Your task to perform on an android device: turn pop-ups off in chrome Image 0: 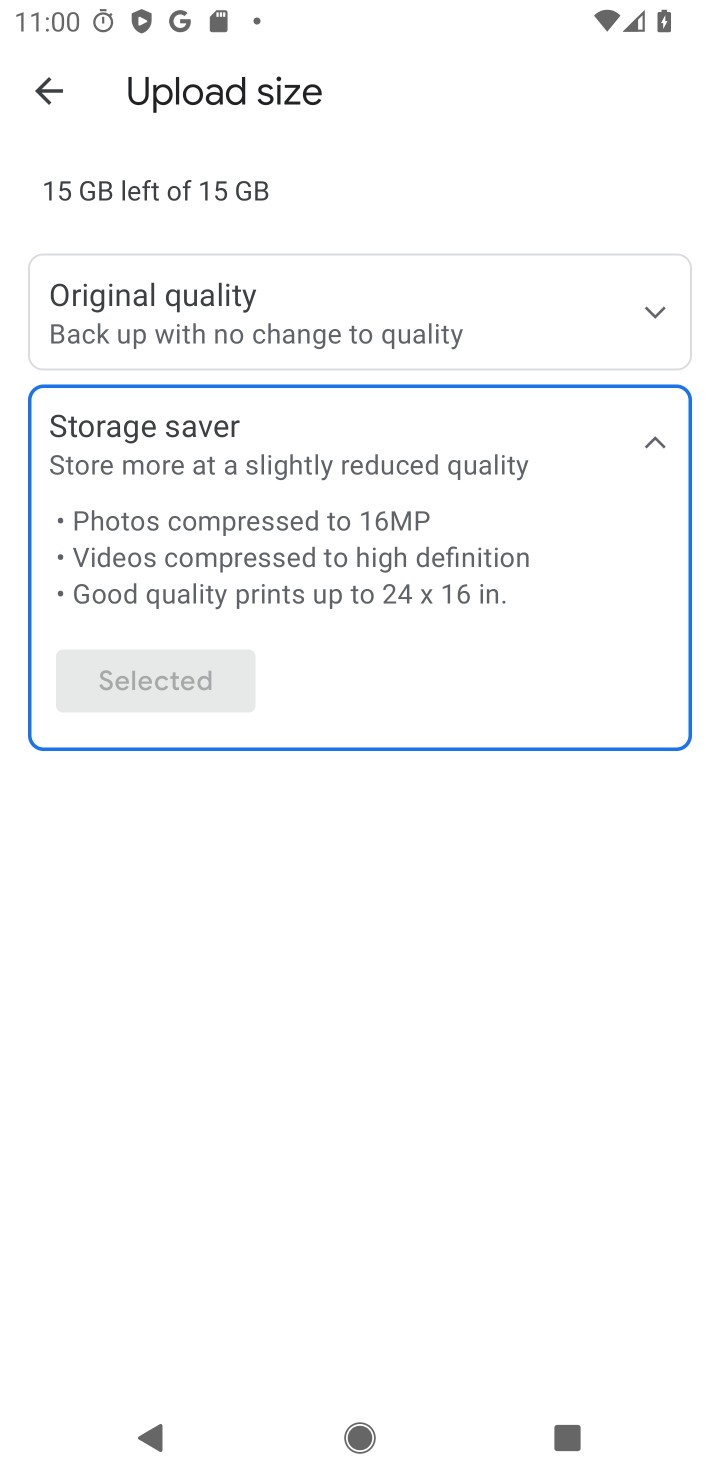
Step 0: press home button
Your task to perform on an android device: turn pop-ups off in chrome Image 1: 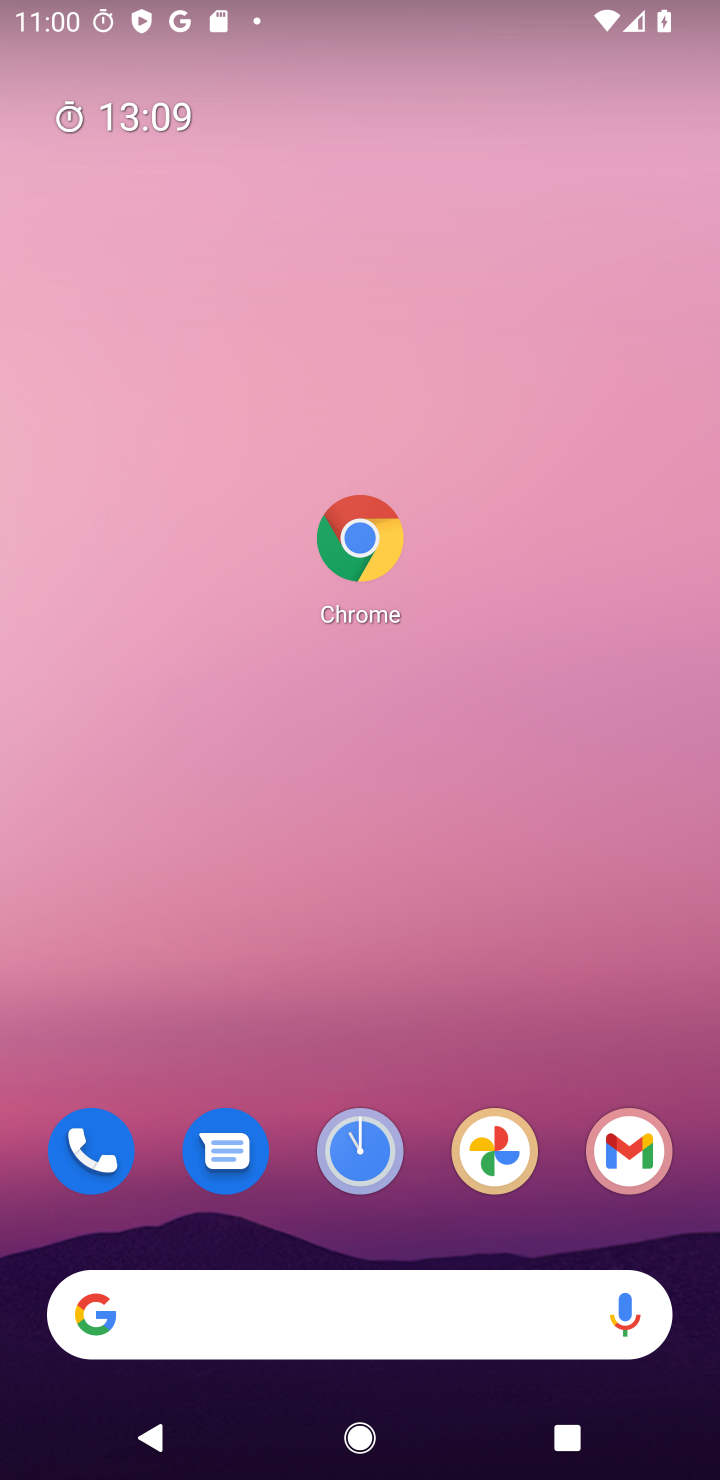
Step 1: click (390, 550)
Your task to perform on an android device: turn pop-ups off in chrome Image 2: 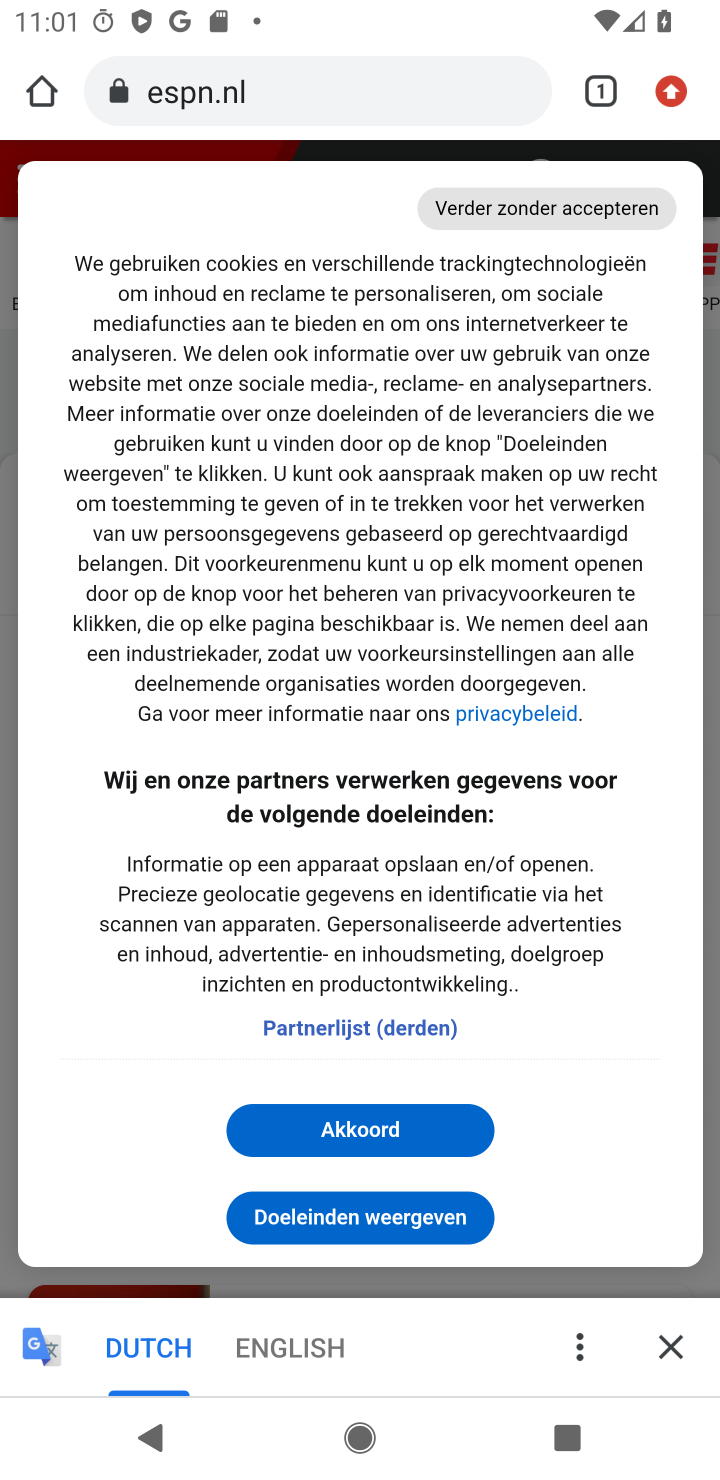
Step 2: click (670, 89)
Your task to perform on an android device: turn pop-ups off in chrome Image 3: 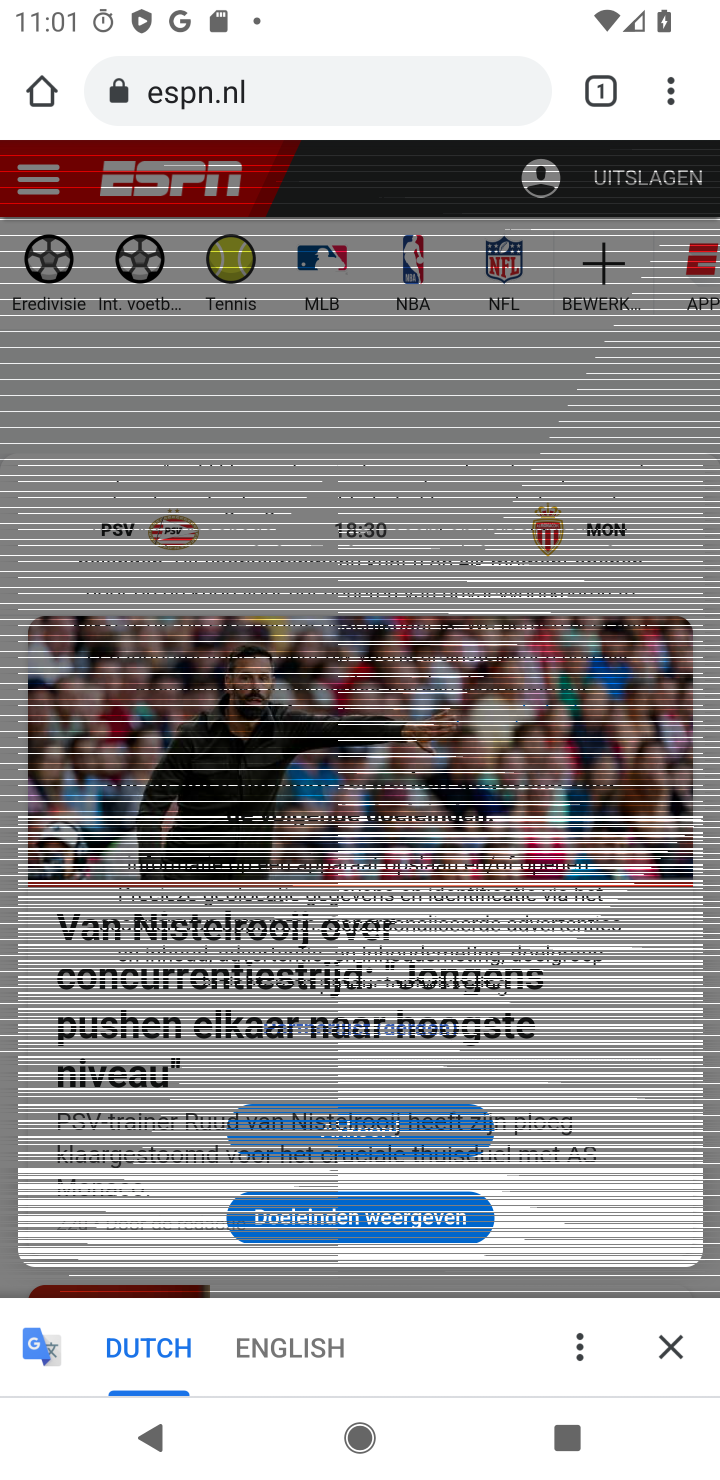
Step 3: click (673, 97)
Your task to perform on an android device: turn pop-ups off in chrome Image 4: 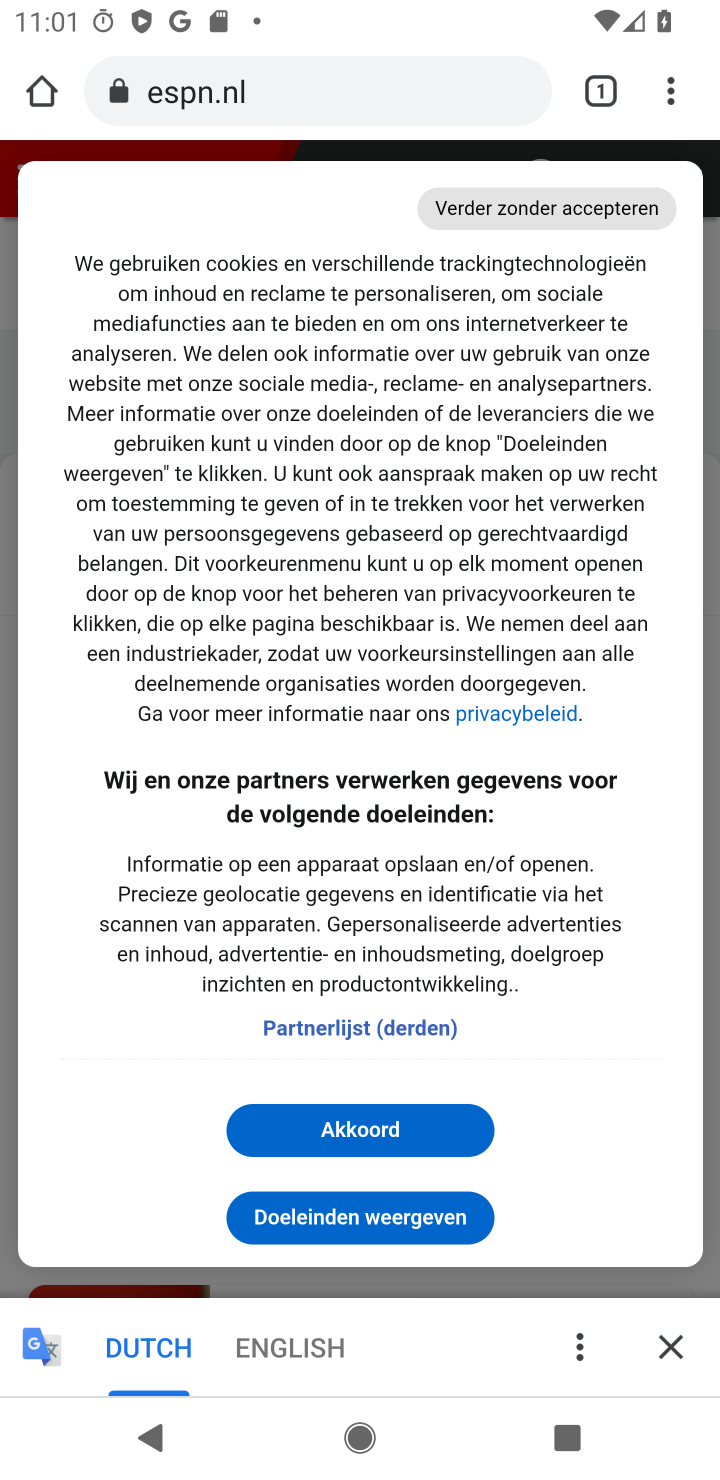
Step 4: click (674, 89)
Your task to perform on an android device: turn pop-ups off in chrome Image 5: 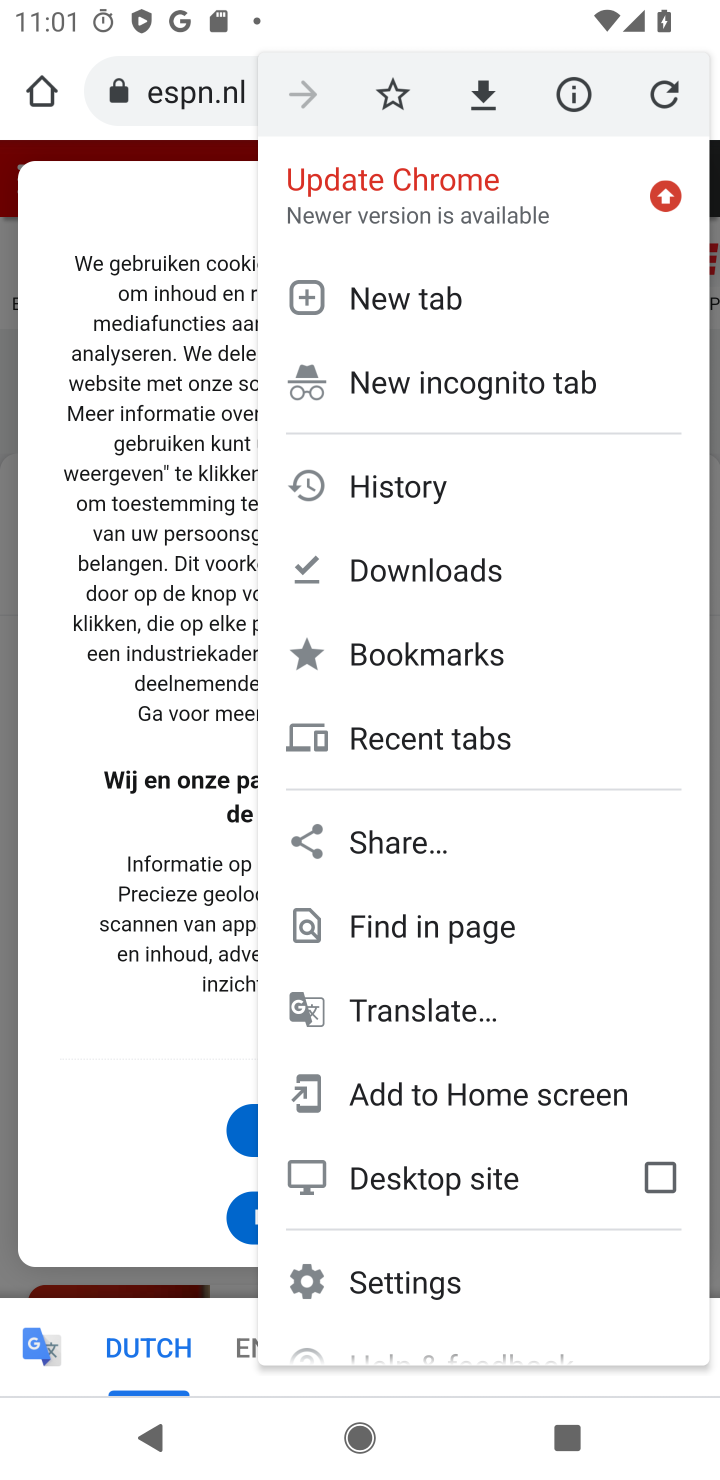
Step 5: click (392, 1292)
Your task to perform on an android device: turn pop-ups off in chrome Image 6: 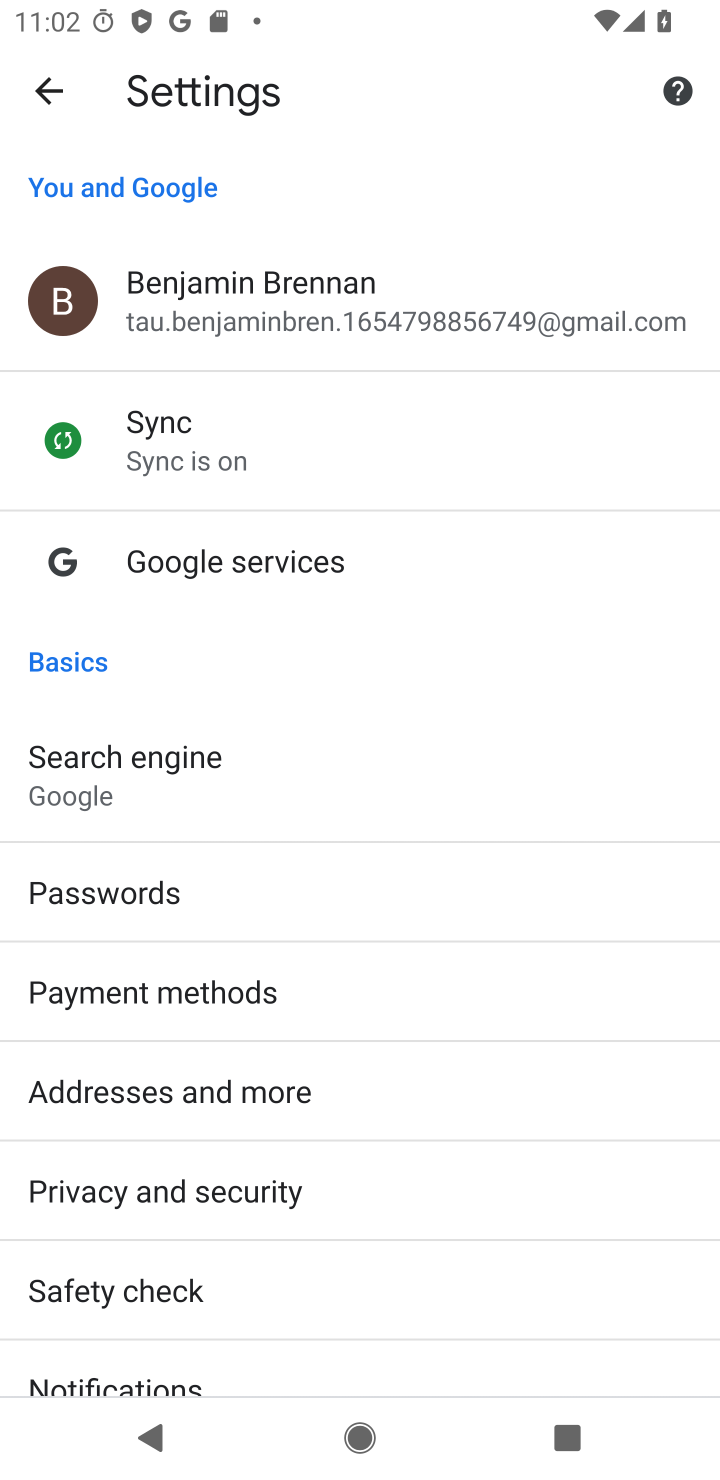
Step 6: drag from (527, 1271) to (351, 731)
Your task to perform on an android device: turn pop-ups off in chrome Image 7: 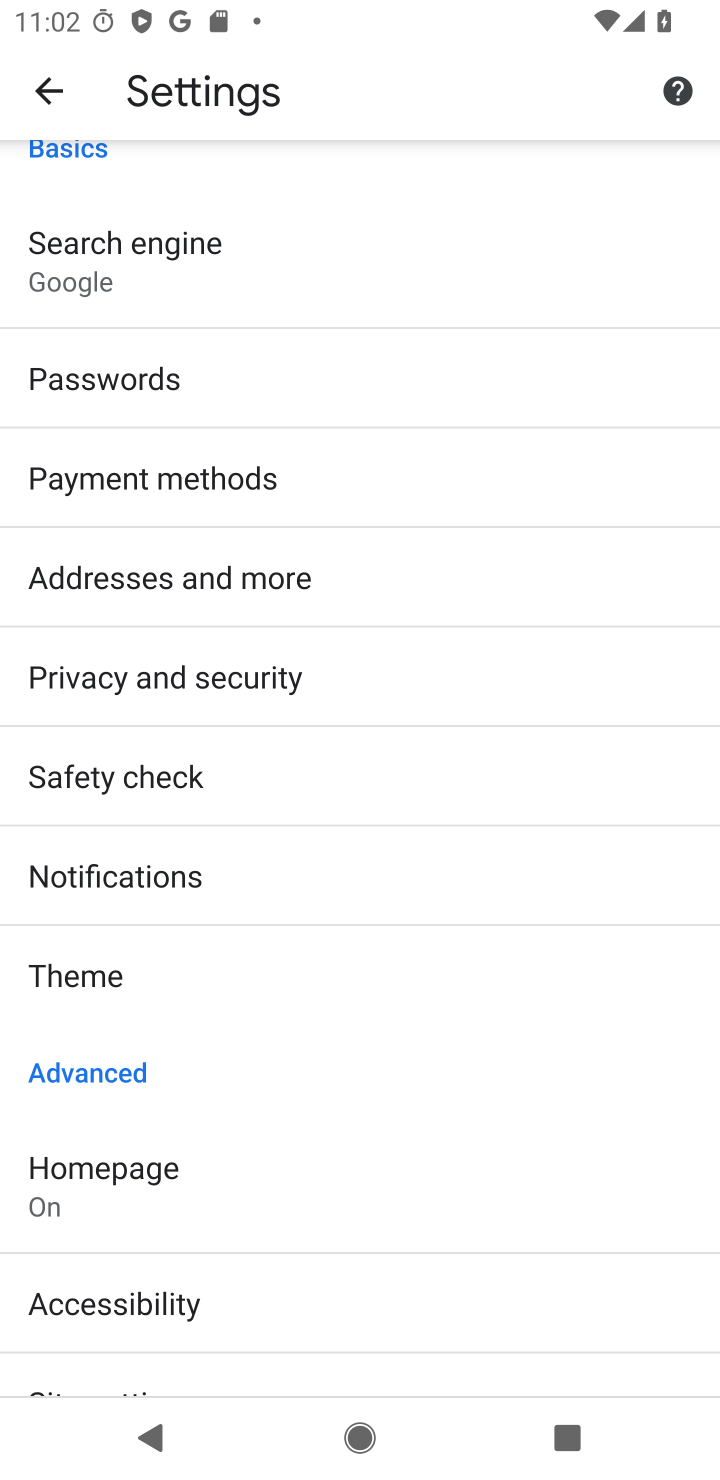
Step 7: drag from (400, 1152) to (270, 640)
Your task to perform on an android device: turn pop-ups off in chrome Image 8: 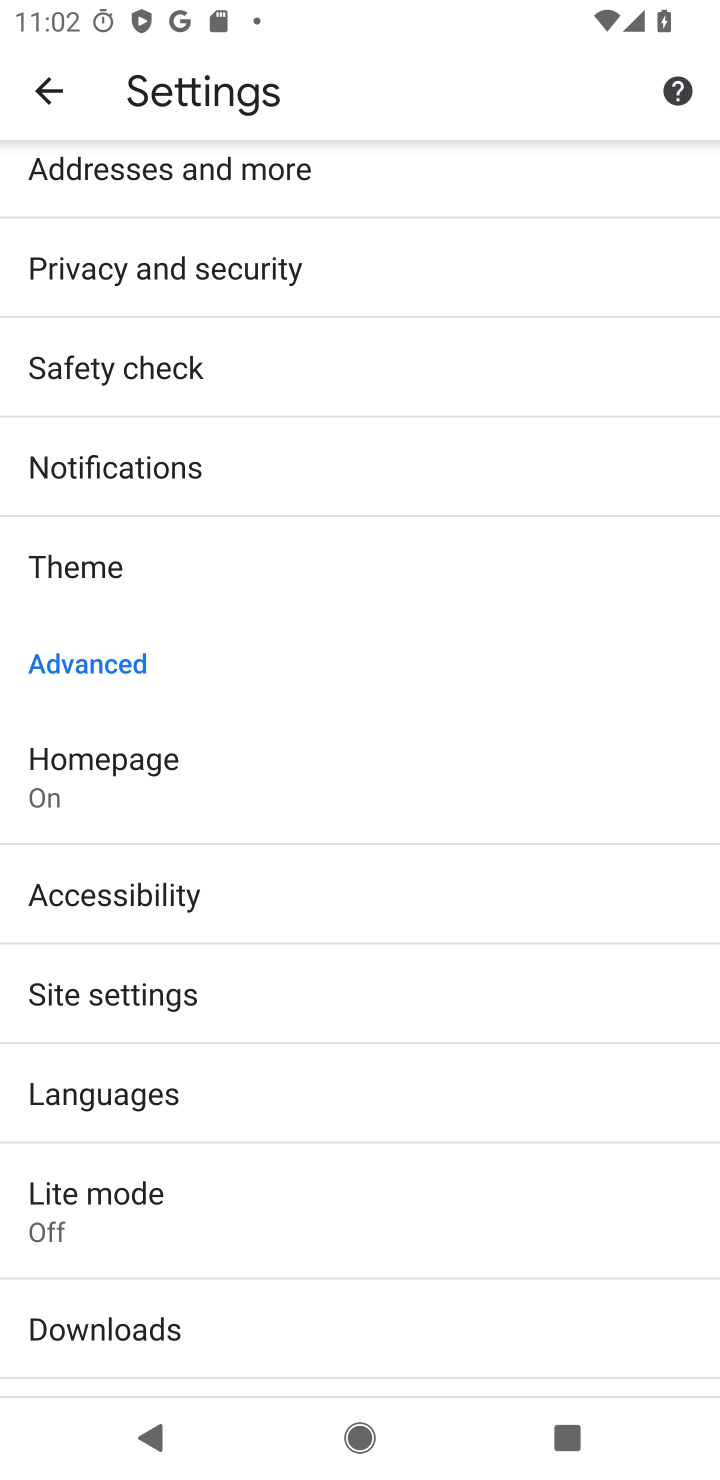
Step 8: click (206, 1013)
Your task to perform on an android device: turn pop-ups off in chrome Image 9: 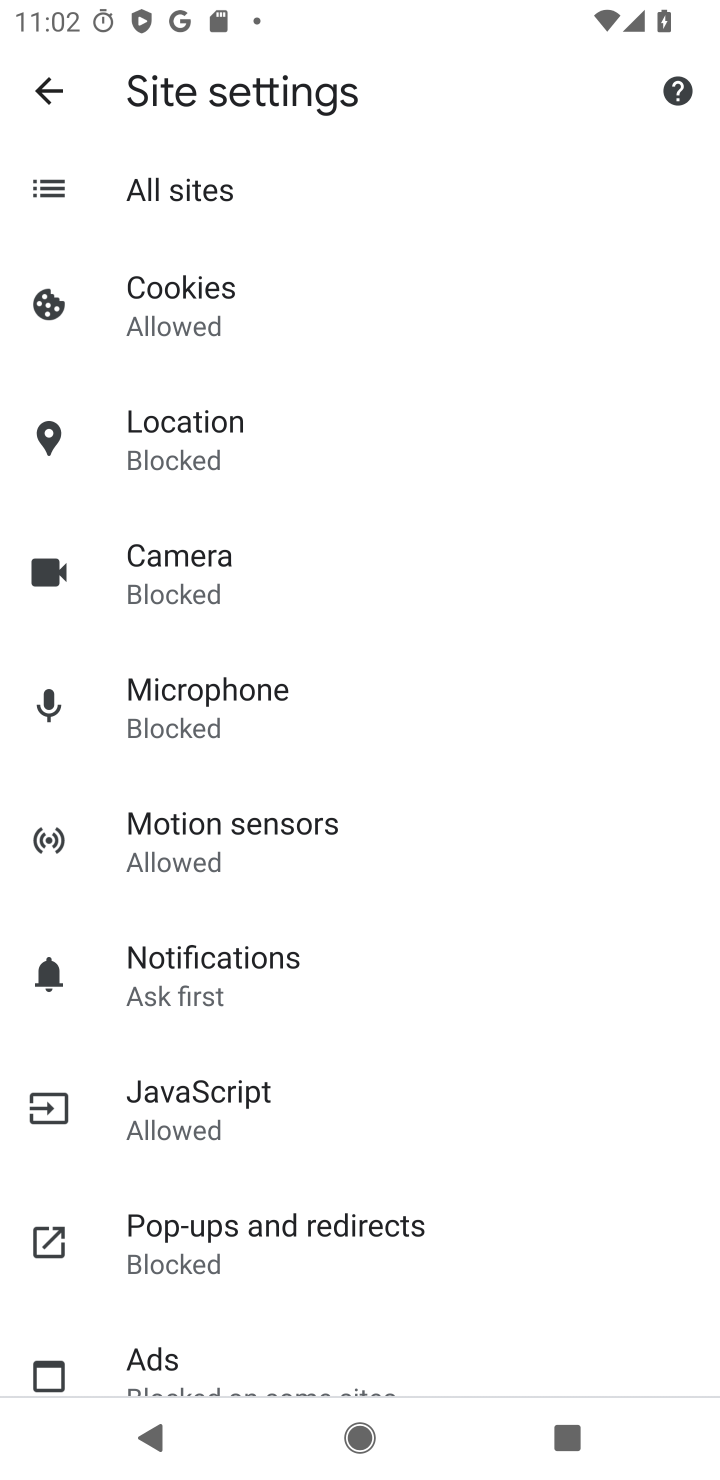
Step 9: click (515, 1239)
Your task to perform on an android device: turn pop-ups off in chrome Image 10: 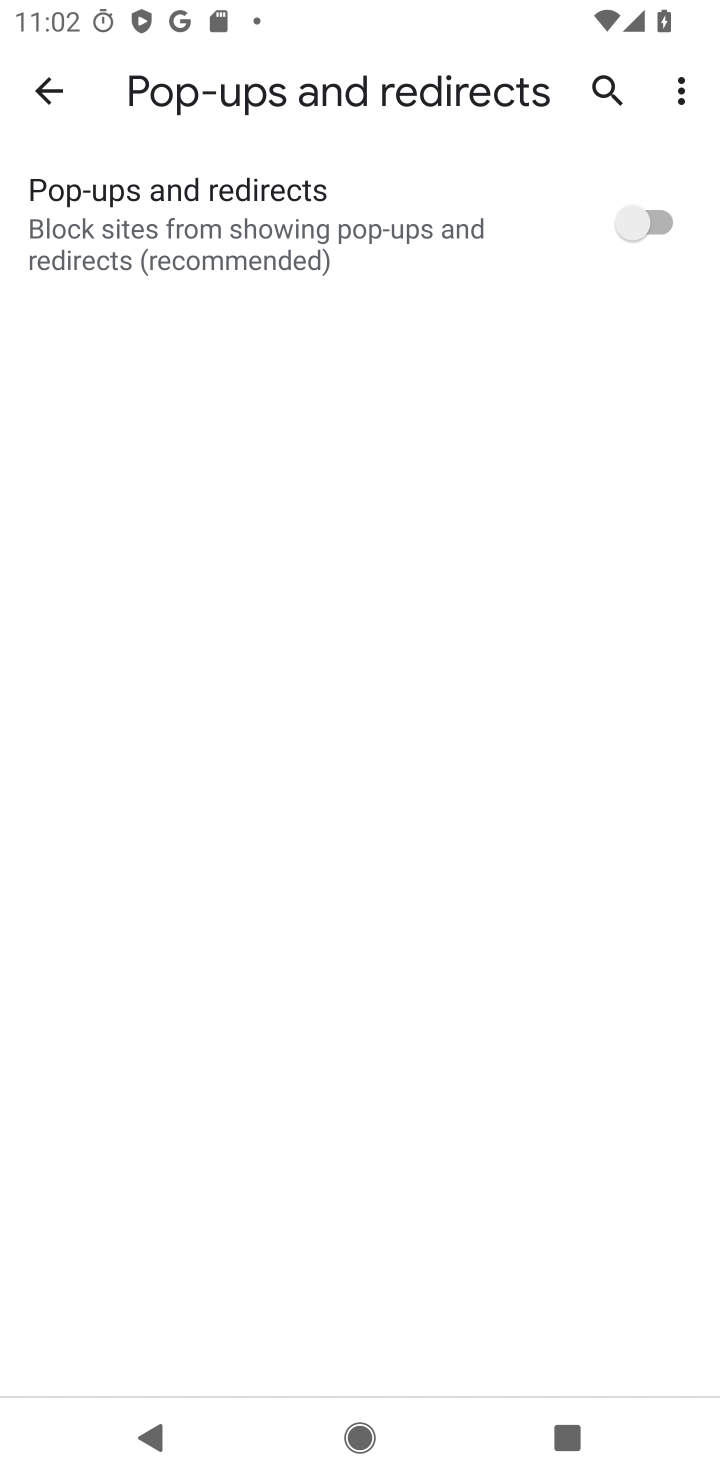
Step 10: task complete